Your task to perform on an android device: change the clock display to digital Image 0: 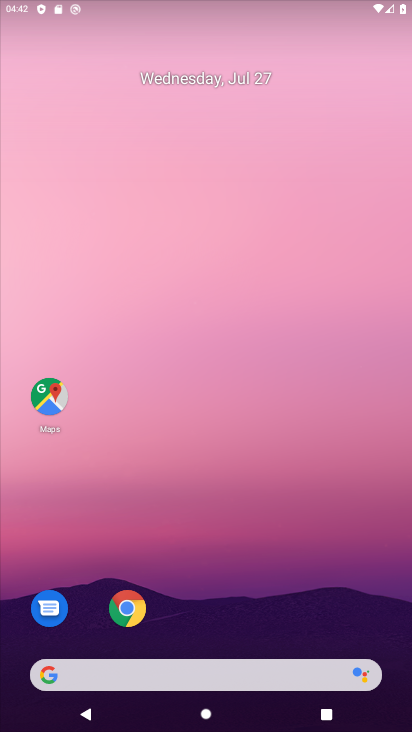
Step 0: press home button
Your task to perform on an android device: change the clock display to digital Image 1: 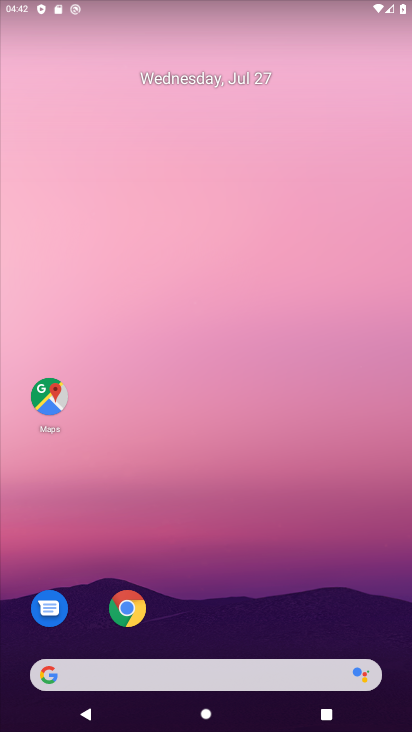
Step 1: drag from (229, 635) to (220, 60)
Your task to perform on an android device: change the clock display to digital Image 2: 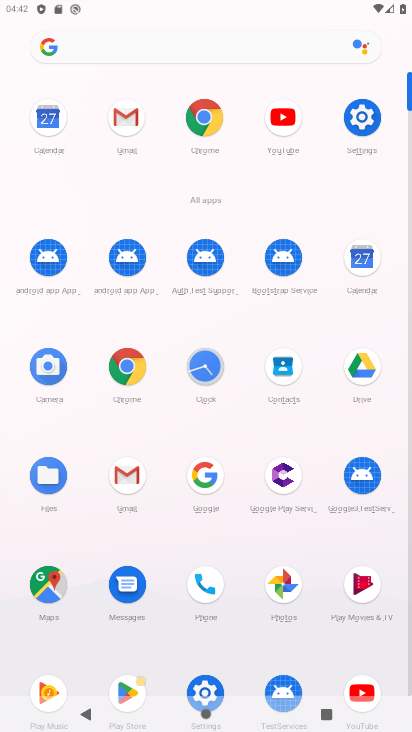
Step 2: click (203, 372)
Your task to perform on an android device: change the clock display to digital Image 3: 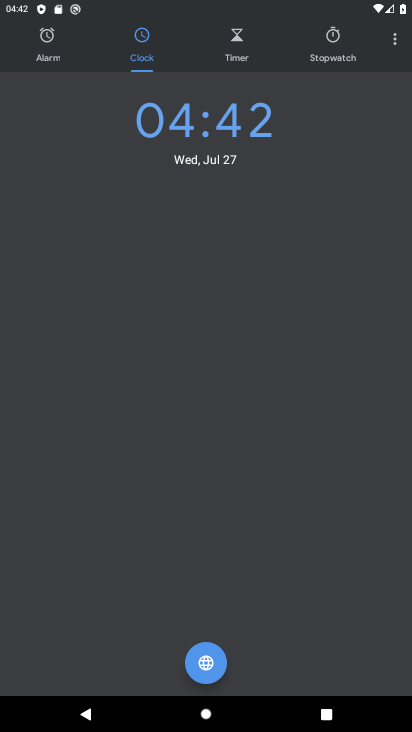
Step 3: click (390, 35)
Your task to perform on an android device: change the clock display to digital Image 4: 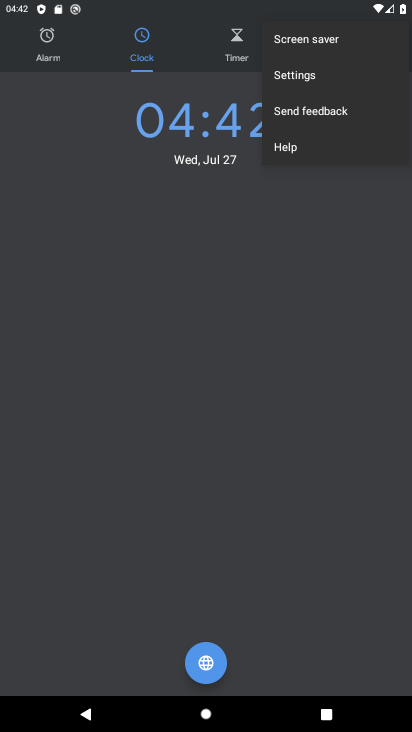
Step 4: click (299, 76)
Your task to perform on an android device: change the clock display to digital Image 5: 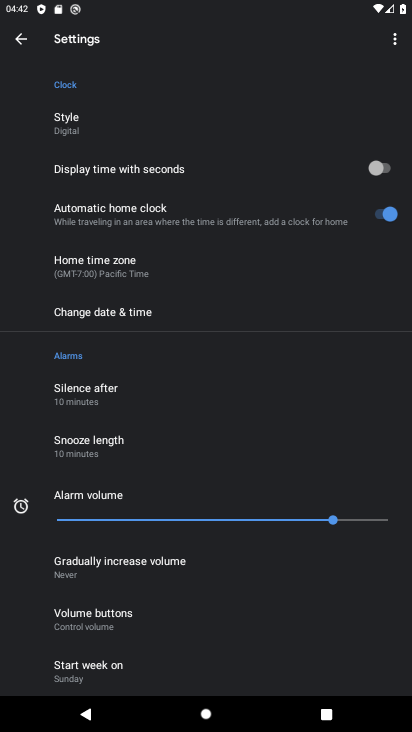
Step 5: click (54, 124)
Your task to perform on an android device: change the clock display to digital Image 6: 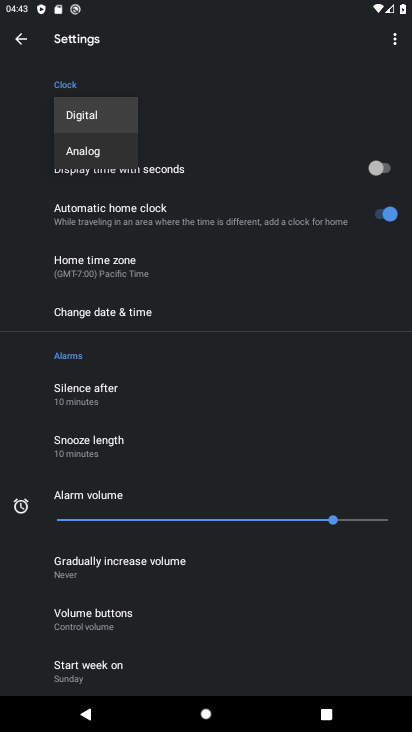
Step 6: task complete